Your task to perform on an android device: Open location settings Image 0: 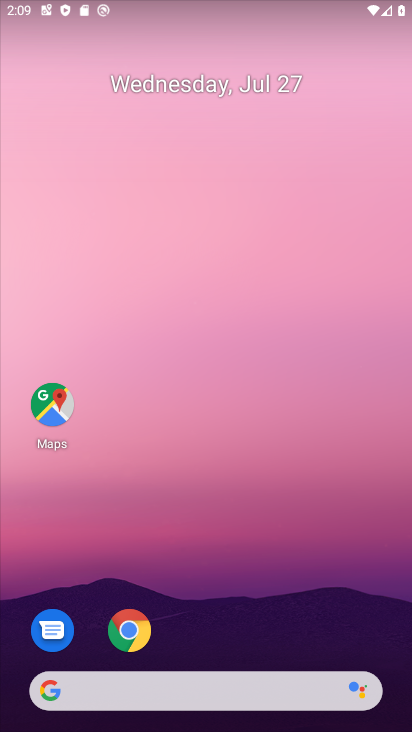
Step 0: drag from (394, 706) to (363, 21)
Your task to perform on an android device: Open location settings Image 1: 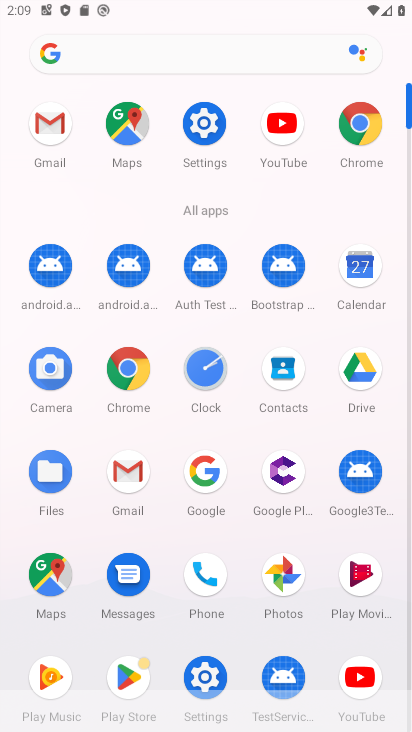
Step 1: click (212, 127)
Your task to perform on an android device: Open location settings Image 2: 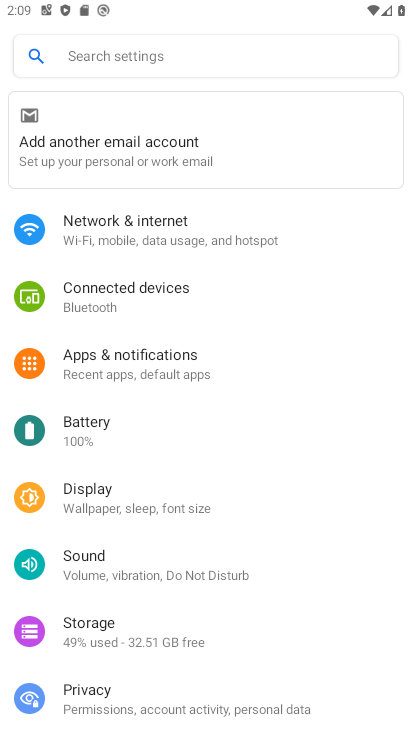
Step 2: drag from (317, 651) to (288, 262)
Your task to perform on an android device: Open location settings Image 3: 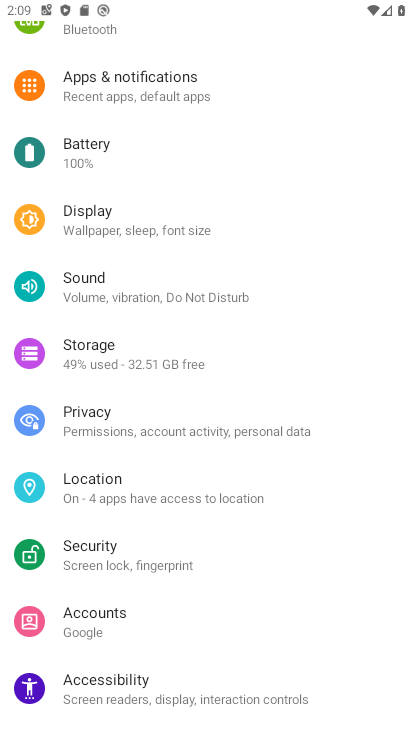
Step 3: click (89, 494)
Your task to perform on an android device: Open location settings Image 4: 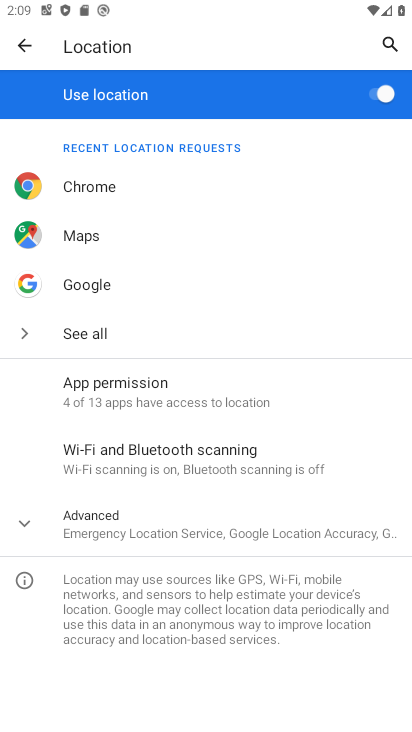
Step 4: task complete